Your task to perform on an android device: delete a single message in the gmail app Image 0: 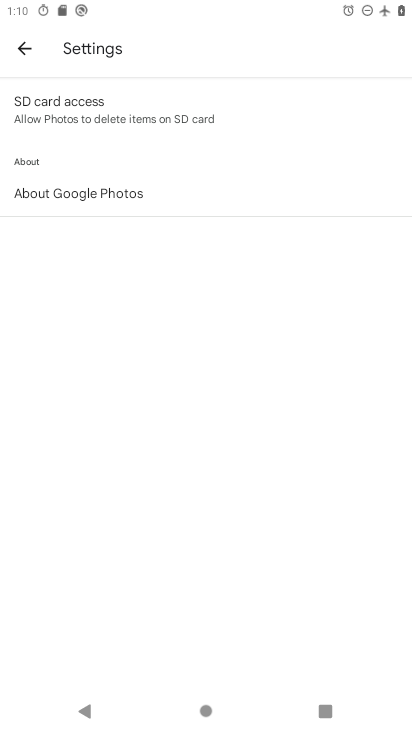
Step 0: press home button
Your task to perform on an android device: delete a single message in the gmail app Image 1: 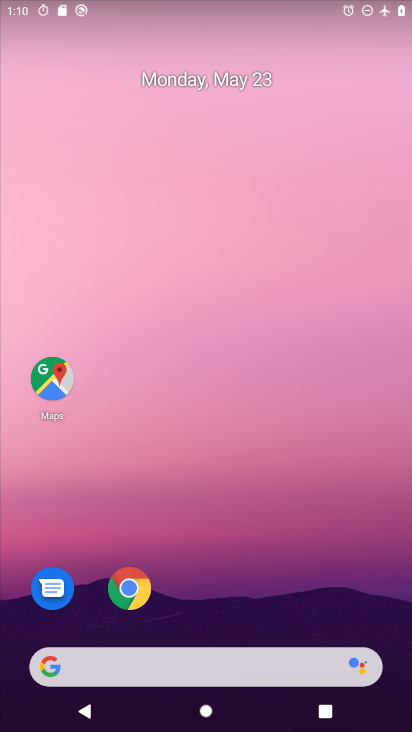
Step 1: drag from (252, 698) to (317, 235)
Your task to perform on an android device: delete a single message in the gmail app Image 2: 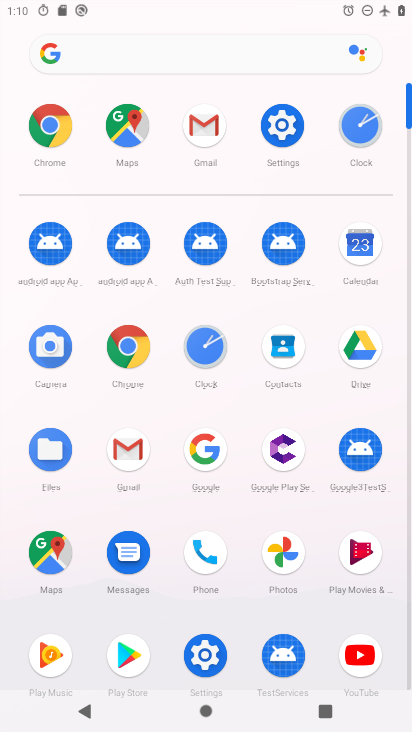
Step 2: click (213, 141)
Your task to perform on an android device: delete a single message in the gmail app Image 3: 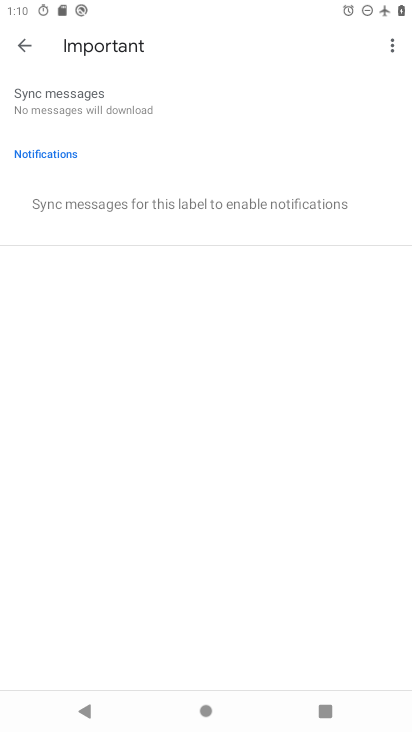
Step 3: click (24, 56)
Your task to perform on an android device: delete a single message in the gmail app Image 4: 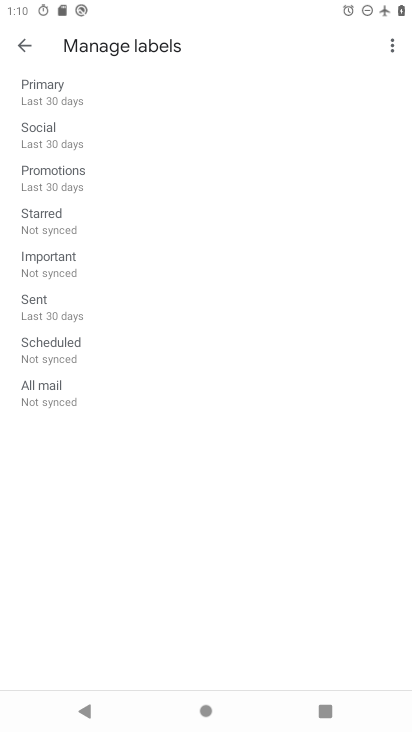
Step 4: click (24, 56)
Your task to perform on an android device: delete a single message in the gmail app Image 5: 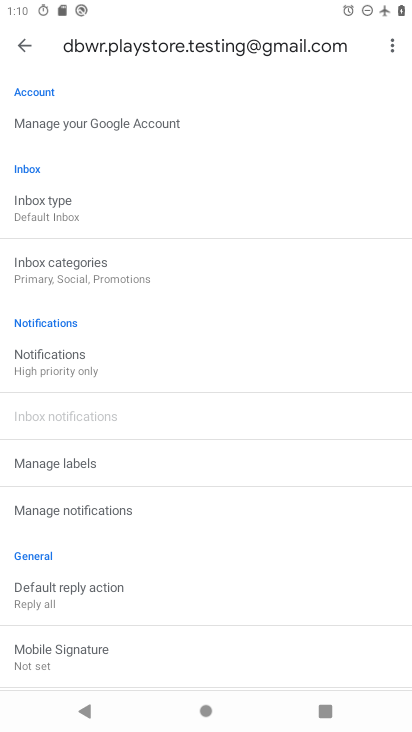
Step 5: click (34, 57)
Your task to perform on an android device: delete a single message in the gmail app Image 6: 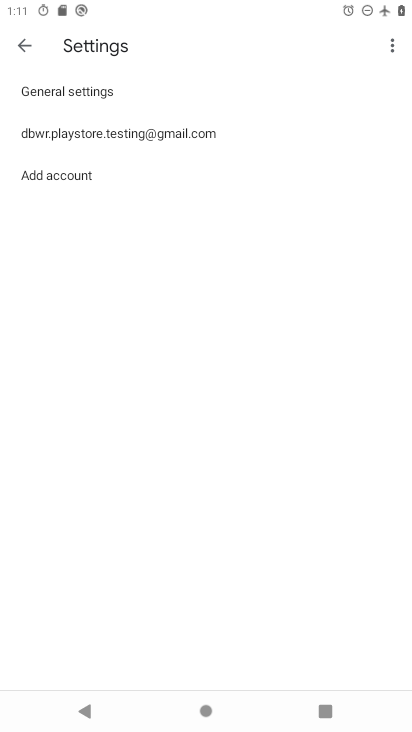
Step 6: click (34, 57)
Your task to perform on an android device: delete a single message in the gmail app Image 7: 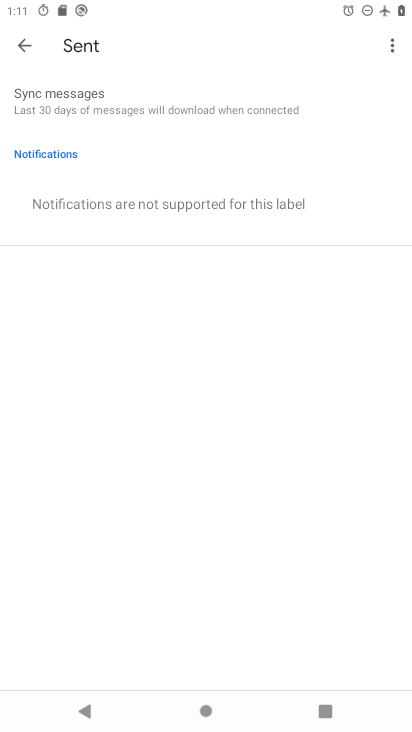
Step 7: click (33, 56)
Your task to perform on an android device: delete a single message in the gmail app Image 8: 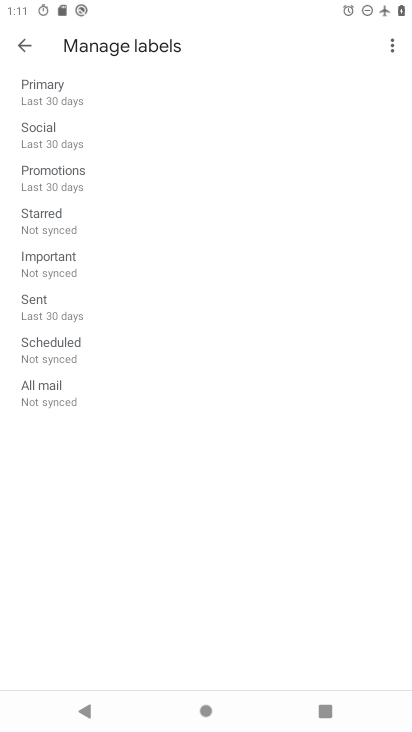
Step 8: click (34, 50)
Your task to perform on an android device: delete a single message in the gmail app Image 9: 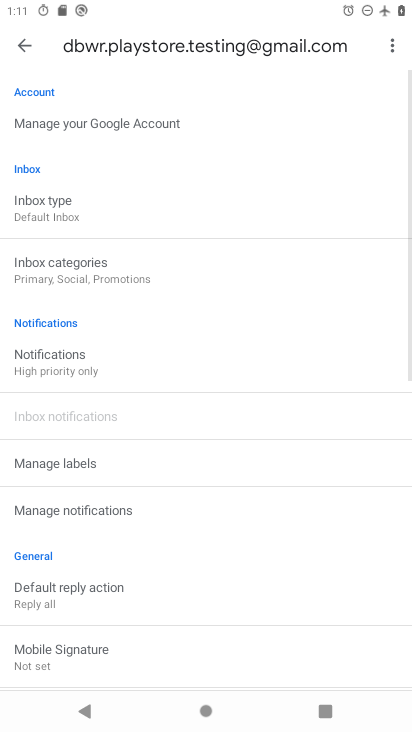
Step 9: click (34, 49)
Your task to perform on an android device: delete a single message in the gmail app Image 10: 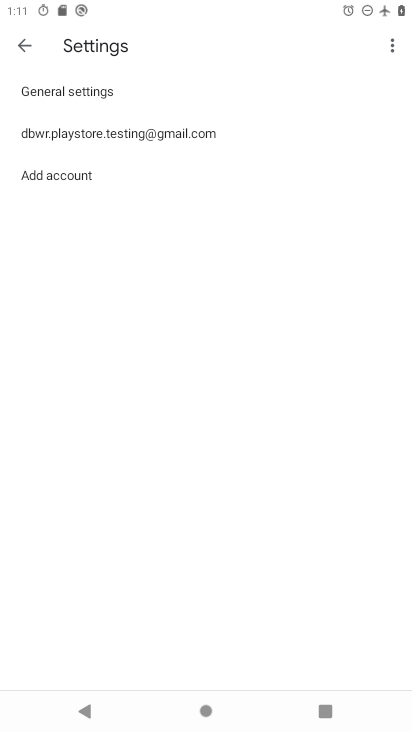
Step 10: click (34, 49)
Your task to perform on an android device: delete a single message in the gmail app Image 11: 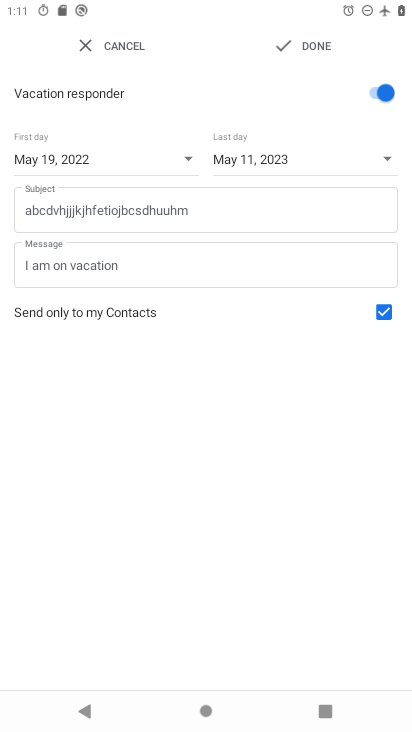
Step 11: click (34, 49)
Your task to perform on an android device: delete a single message in the gmail app Image 12: 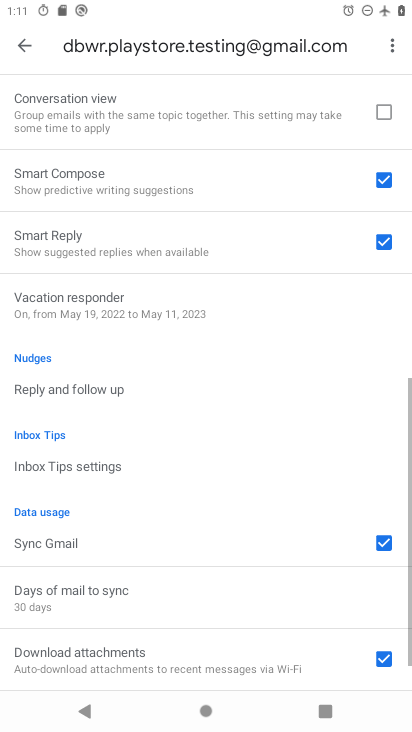
Step 12: click (37, 50)
Your task to perform on an android device: delete a single message in the gmail app Image 13: 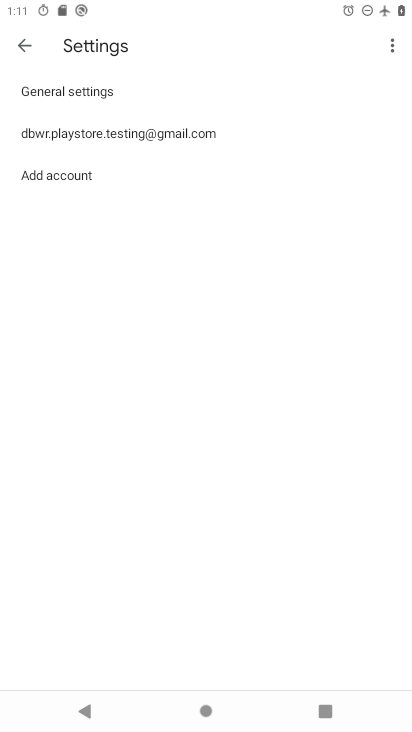
Step 13: click (37, 49)
Your task to perform on an android device: delete a single message in the gmail app Image 14: 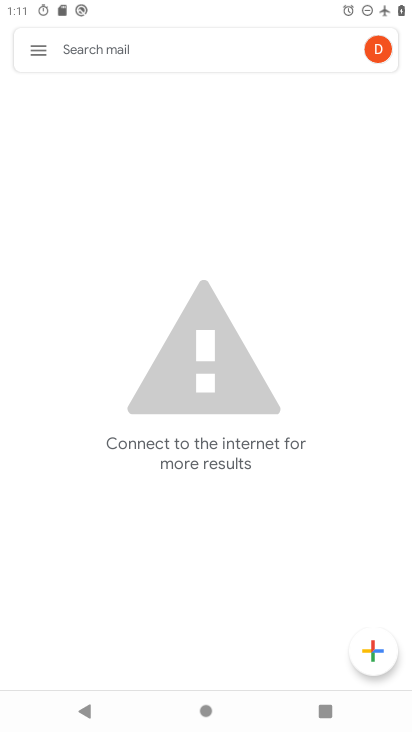
Step 14: task complete